Your task to perform on an android device: check google app version Image 0: 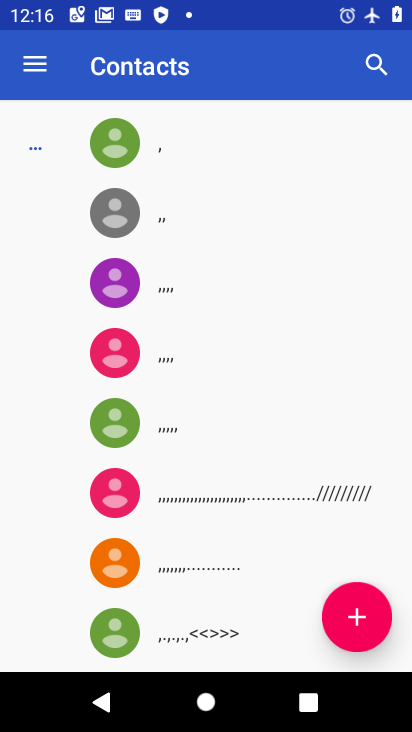
Step 0: press home button
Your task to perform on an android device: check google app version Image 1: 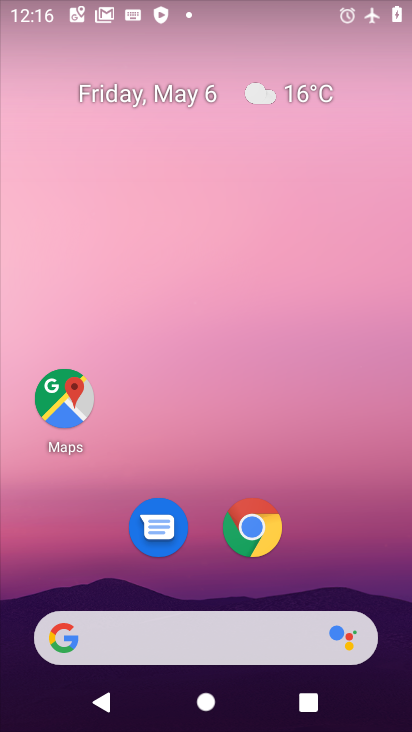
Step 1: drag from (310, 447) to (121, 137)
Your task to perform on an android device: check google app version Image 2: 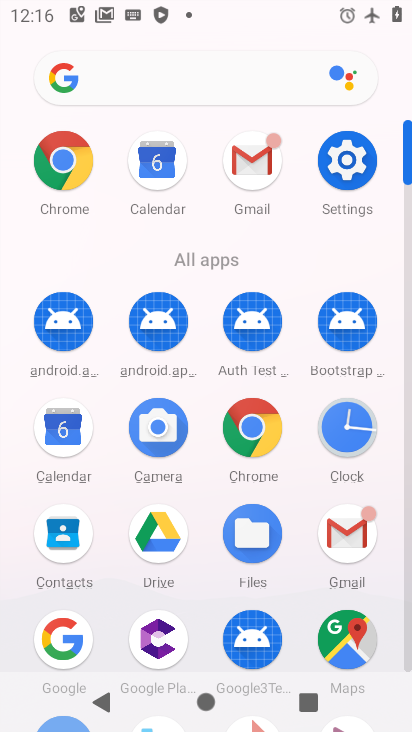
Step 2: click (59, 630)
Your task to perform on an android device: check google app version Image 3: 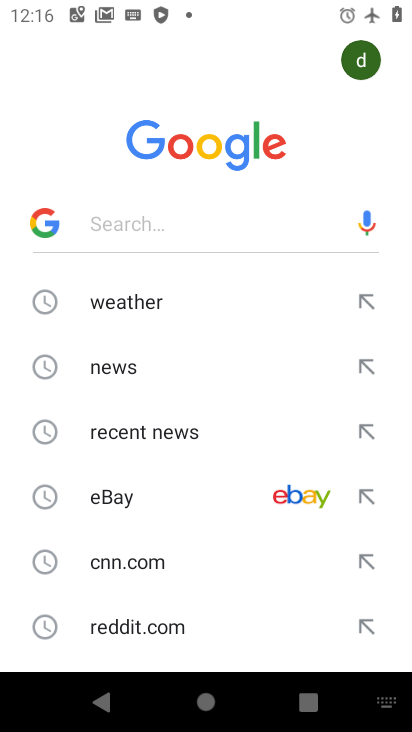
Step 3: click (233, 617)
Your task to perform on an android device: check google app version Image 4: 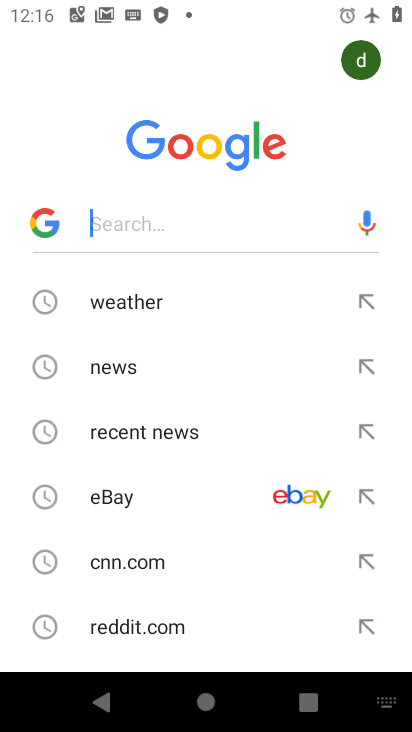
Step 4: click (370, 57)
Your task to perform on an android device: check google app version Image 5: 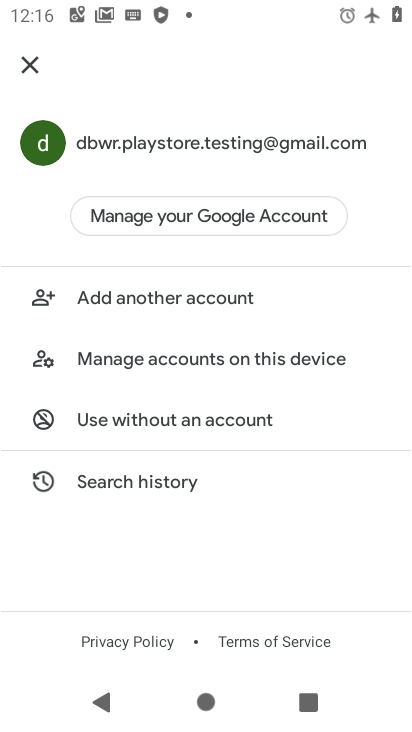
Step 5: click (191, 132)
Your task to perform on an android device: check google app version Image 6: 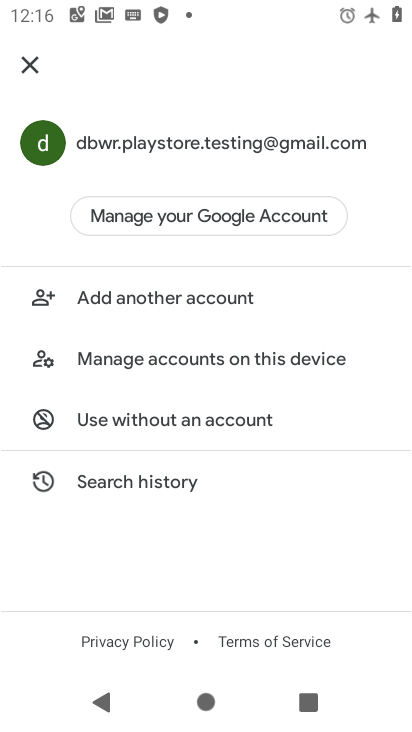
Step 6: click (194, 138)
Your task to perform on an android device: check google app version Image 7: 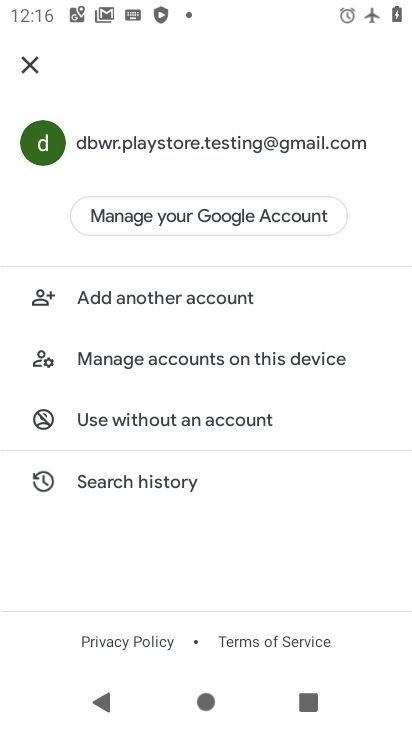
Step 7: click (194, 138)
Your task to perform on an android device: check google app version Image 8: 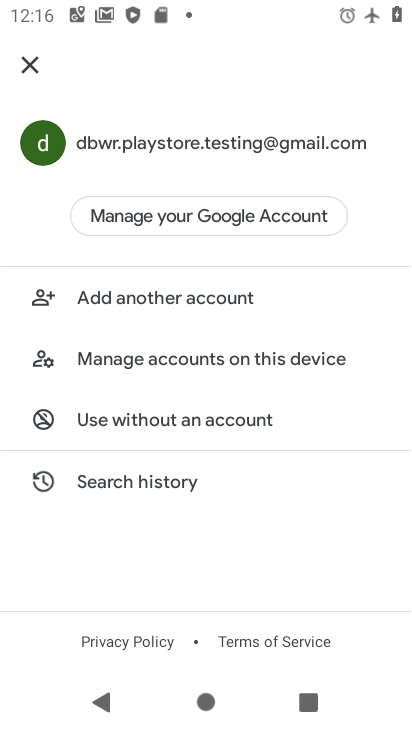
Step 8: click (142, 361)
Your task to perform on an android device: check google app version Image 9: 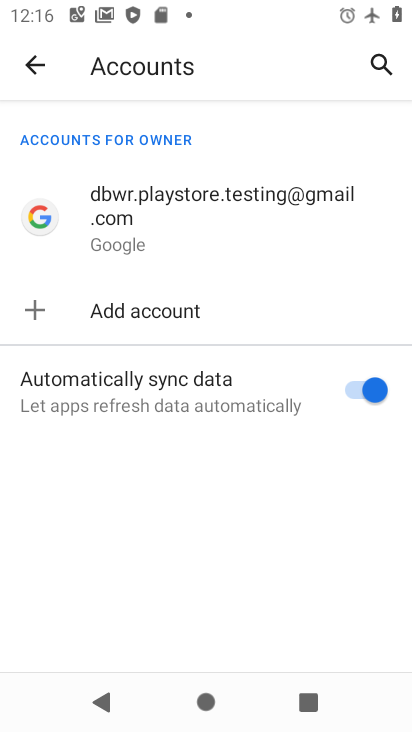
Step 9: click (33, 63)
Your task to perform on an android device: check google app version Image 10: 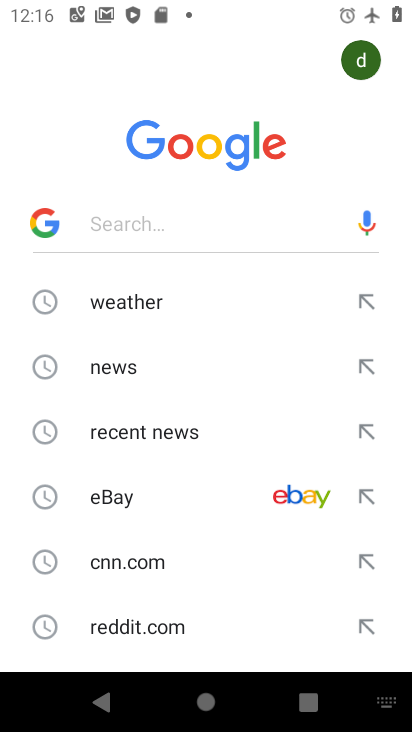
Step 10: click (385, 274)
Your task to perform on an android device: check google app version Image 11: 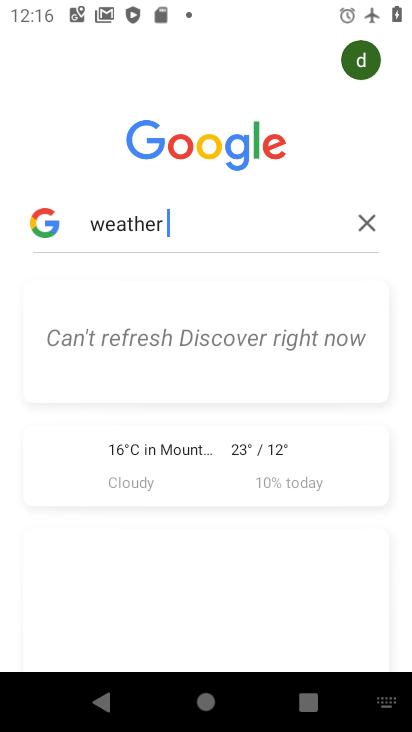
Step 11: drag from (344, 626) to (337, 311)
Your task to perform on an android device: check google app version Image 12: 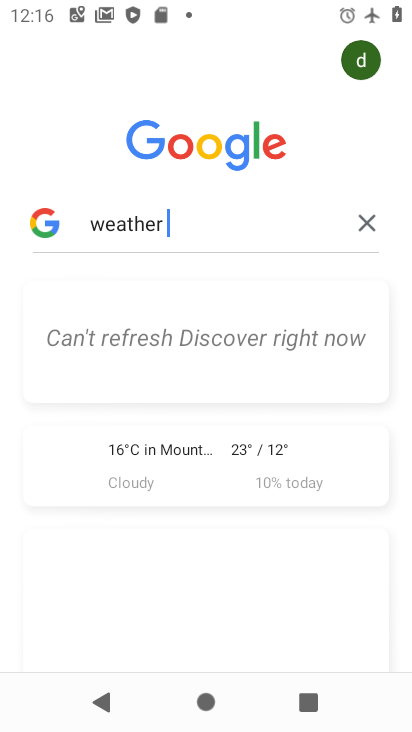
Step 12: drag from (262, 586) to (258, 285)
Your task to perform on an android device: check google app version Image 13: 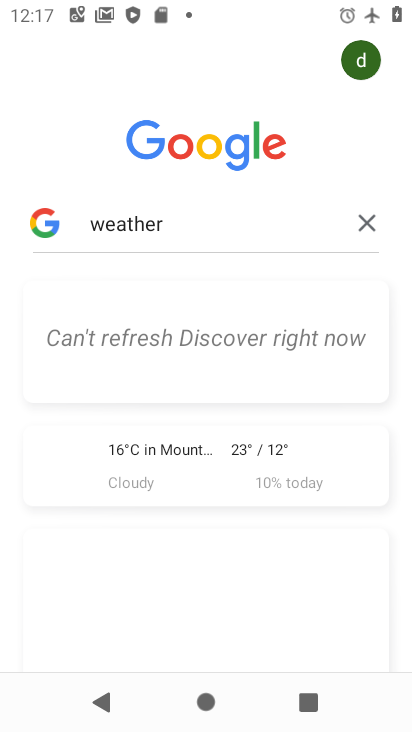
Step 13: click (355, 52)
Your task to perform on an android device: check google app version Image 14: 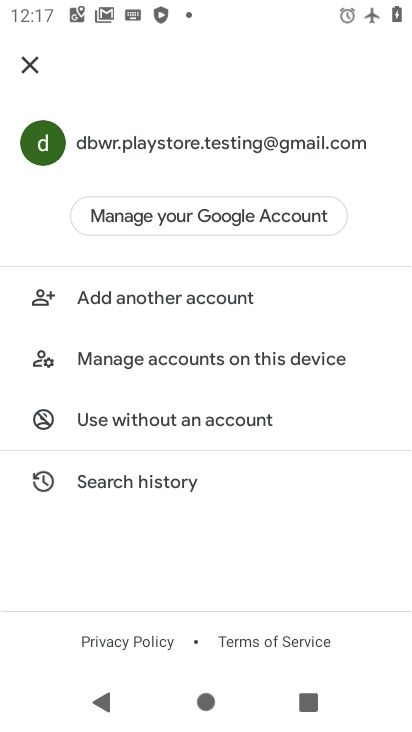
Step 14: click (188, 216)
Your task to perform on an android device: check google app version Image 15: 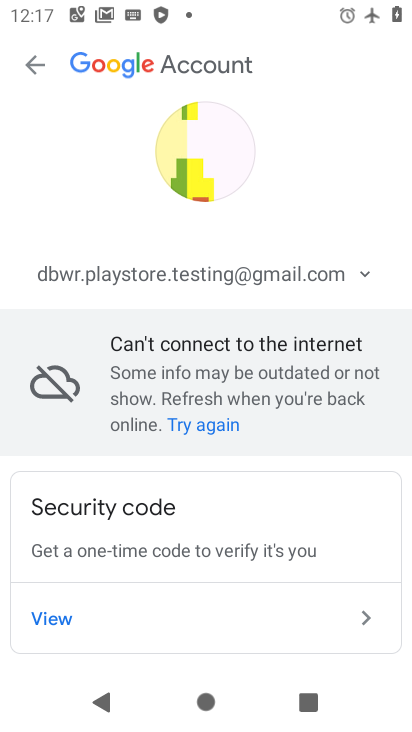
Step 15: task complete